Your task to perform on an android device: open app "Duolingo: language lessons" Image 0: 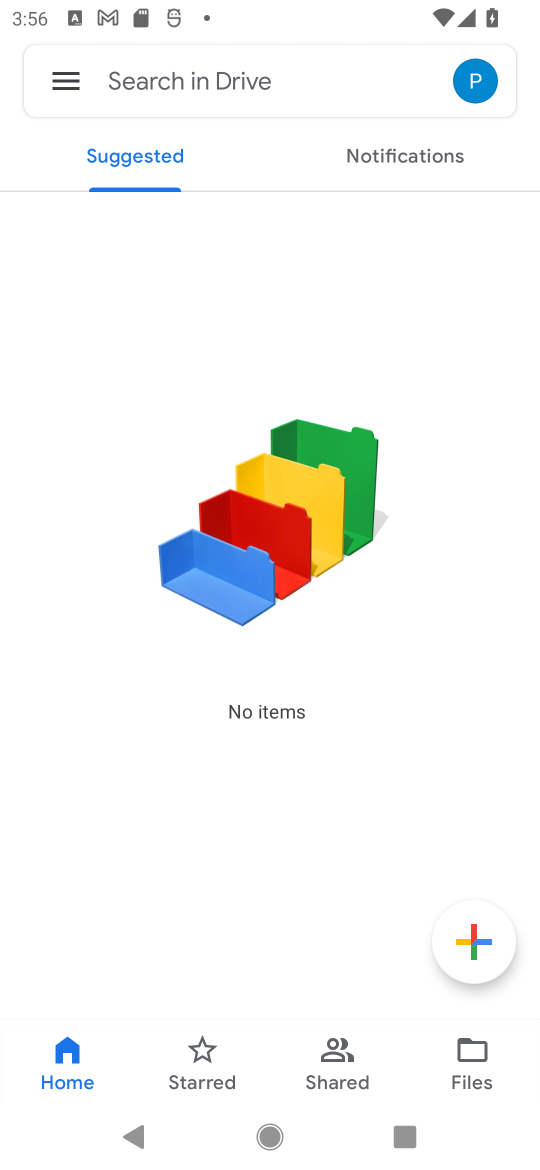
Step 0: press home button
Your task to perform on an android device: open app "Duolingo: language lessons" Image 1: 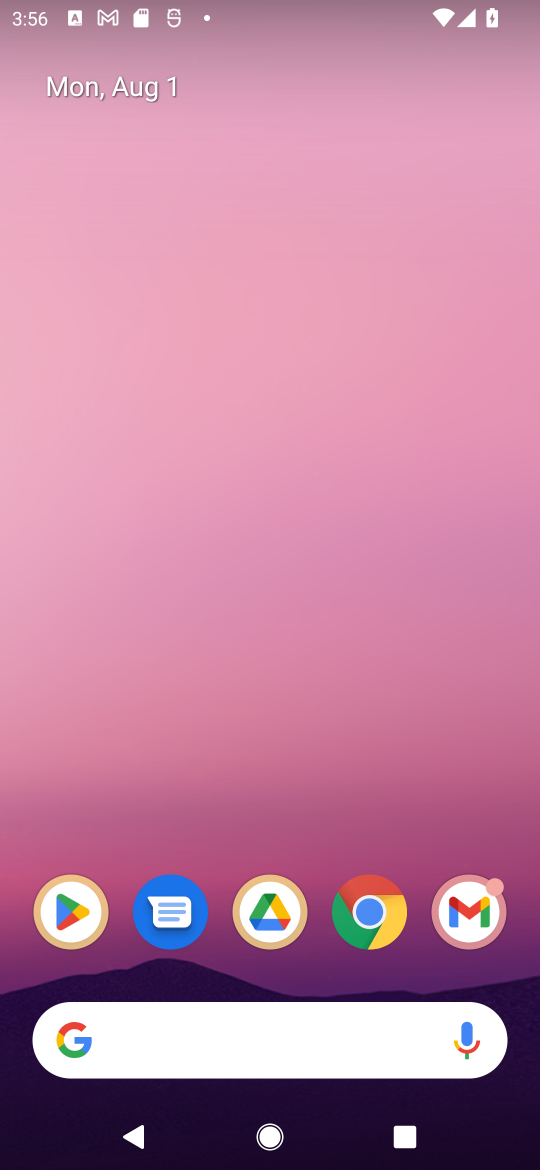
Step 1: click (76, 917)
Your task to perform on an android device: open app "Duolingo: language lessons" Image 2: 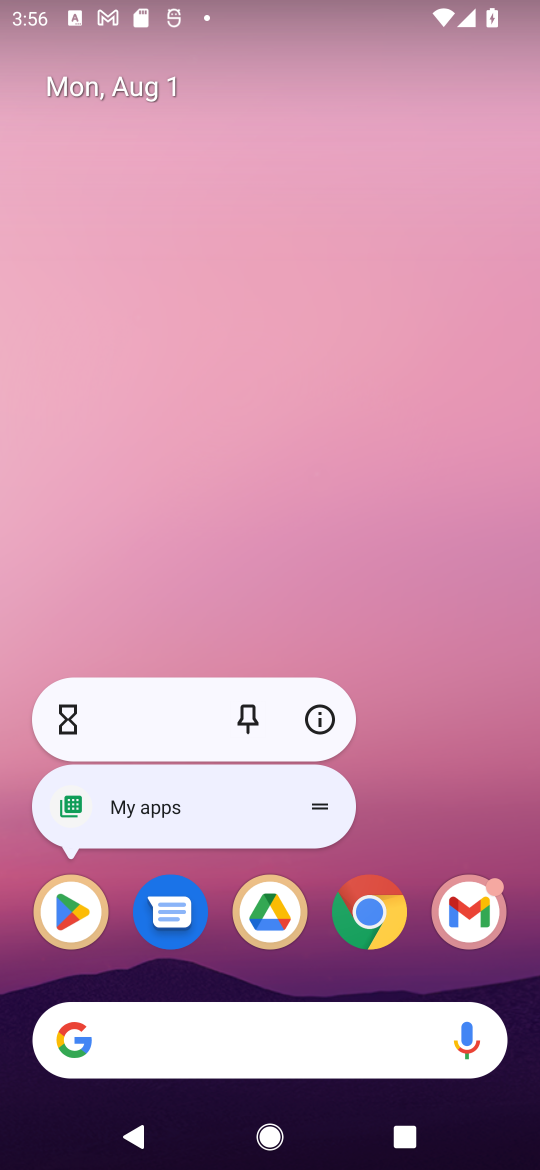
Step 2: click (76, 917)
Your task to perform on an android device: open app "Duolingo: language lessons" Image 3: 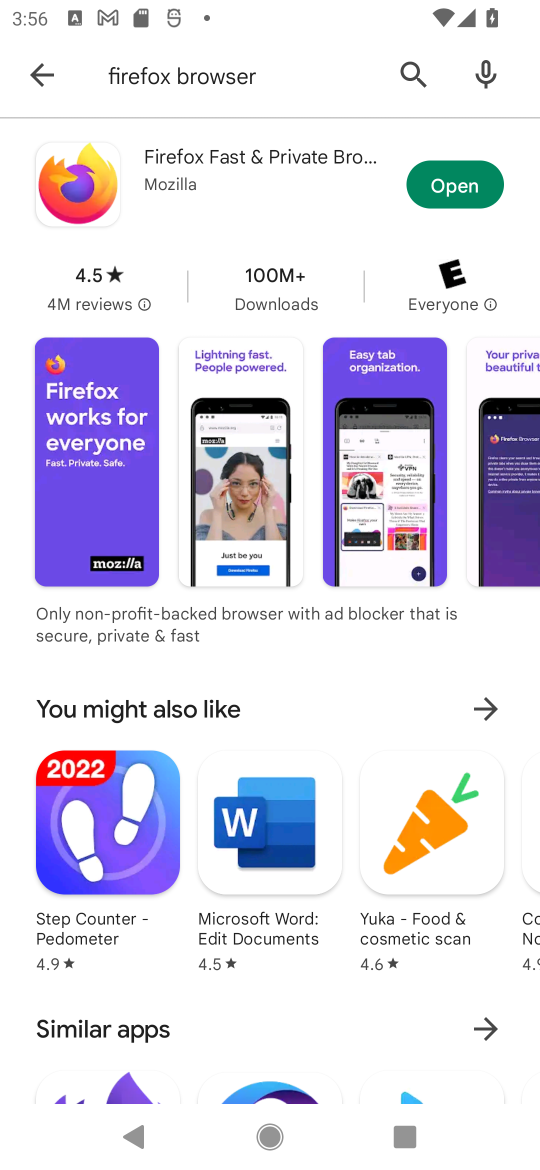
Step 3: click (401, 71)
Your task to perform on an android device: open app "Duolingo: language lessons" Image 4: 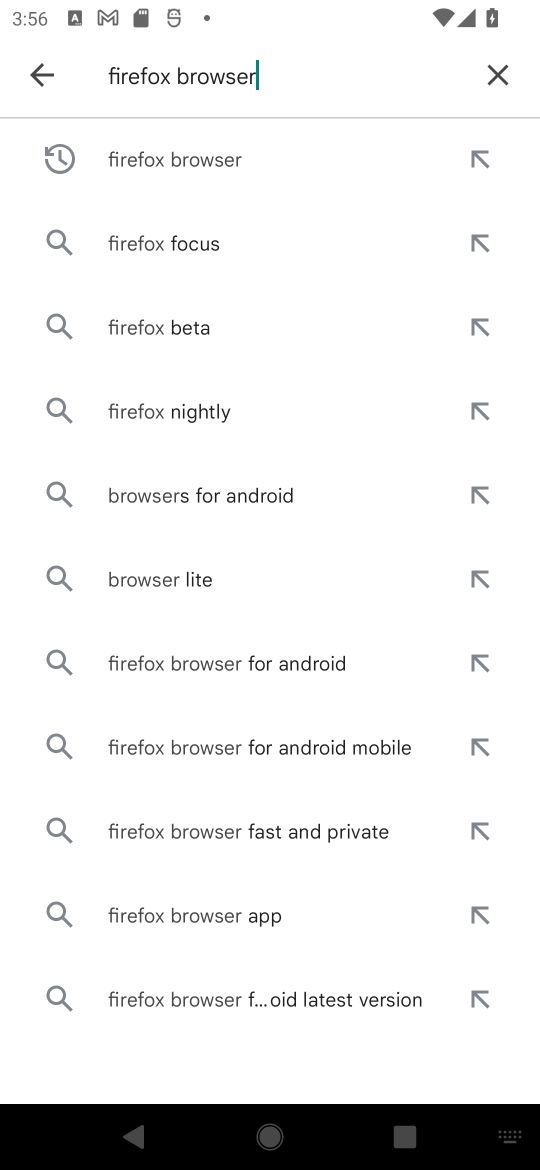
Step 4: click (484, 72)
Your task to perform on an android device: open app "Duolingo: language lessons" Image 5: 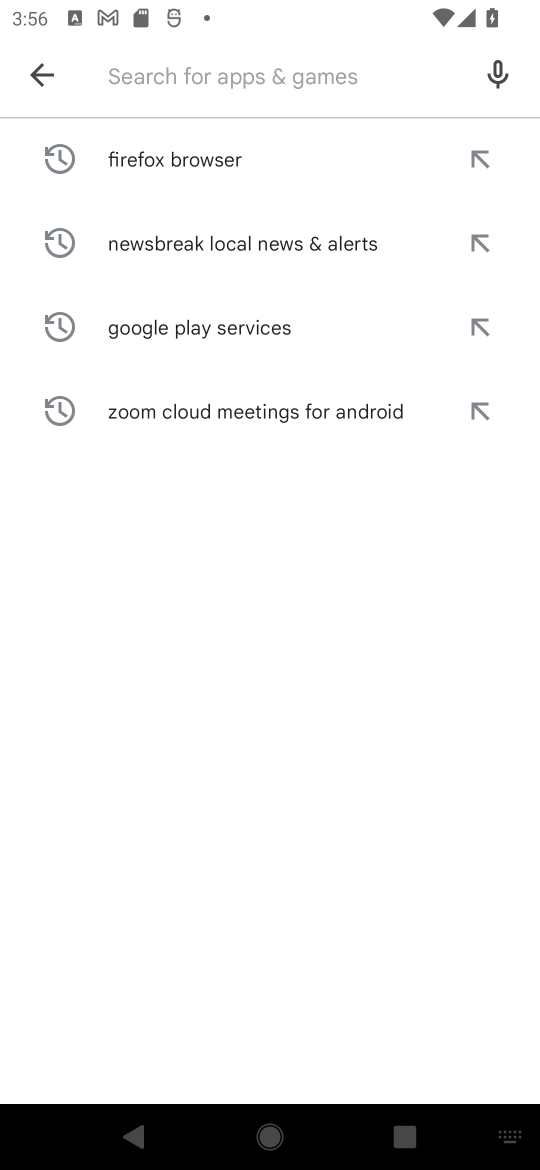
Step 5: type "Duolingo: language lessons"
Your task to perform on an android device: open app "Duolingo: language lessons" Image 6: 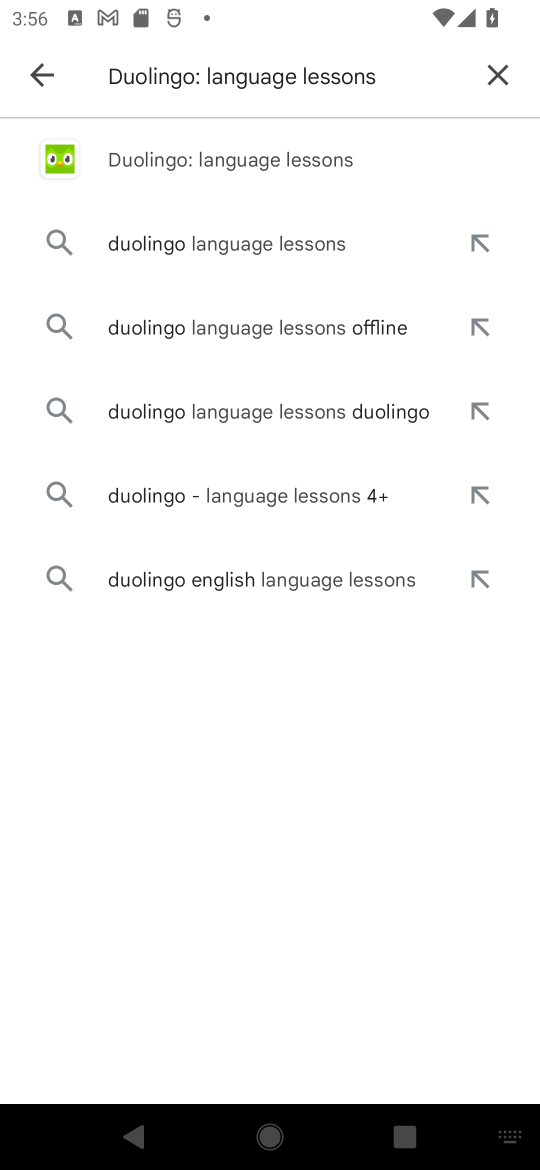
Step 6: click (309, 169)
Your task to perform on an android device: open app "Duolingo: language lessons" Image 7: 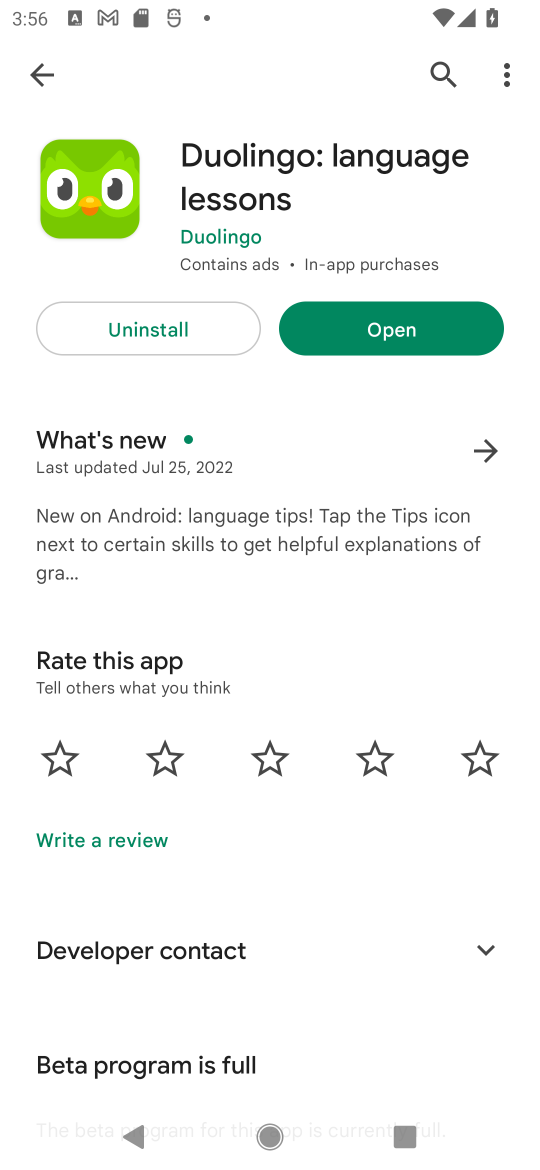
Step 7: click (419, 317)
Your task to perform on an android device: open app "Duolingo: language lessons" Image 8: 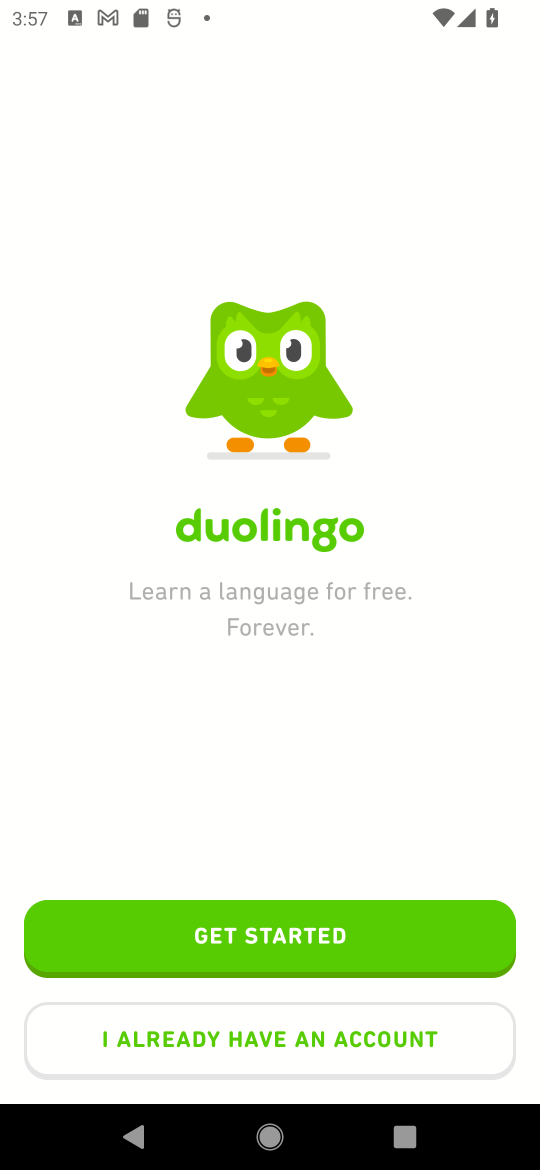
Step 8: task complete